Your task to perform on an android device: open app "Expedia: Hotels, Flights & Car" Image 0: 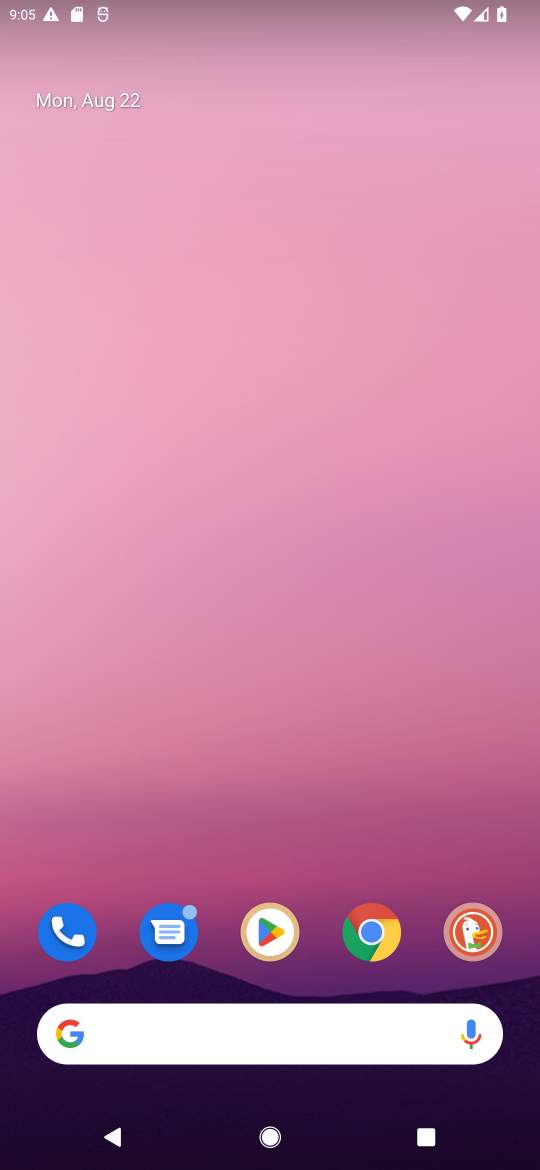
Step 0: click (267, 936)
Your task to perform on an android device: open app "Expedia: Hotels, Flights & Car" Image 1: 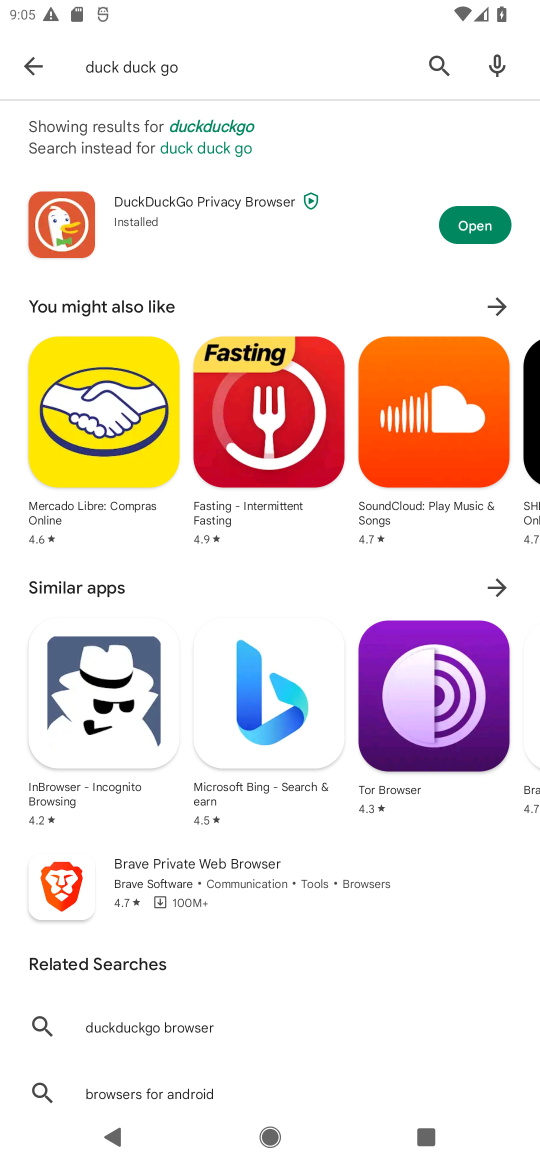
Step 1: click (418, 83)
Your task to perform on an android device: open app "Expedia: Hotels, Flights & Car" Image 2: 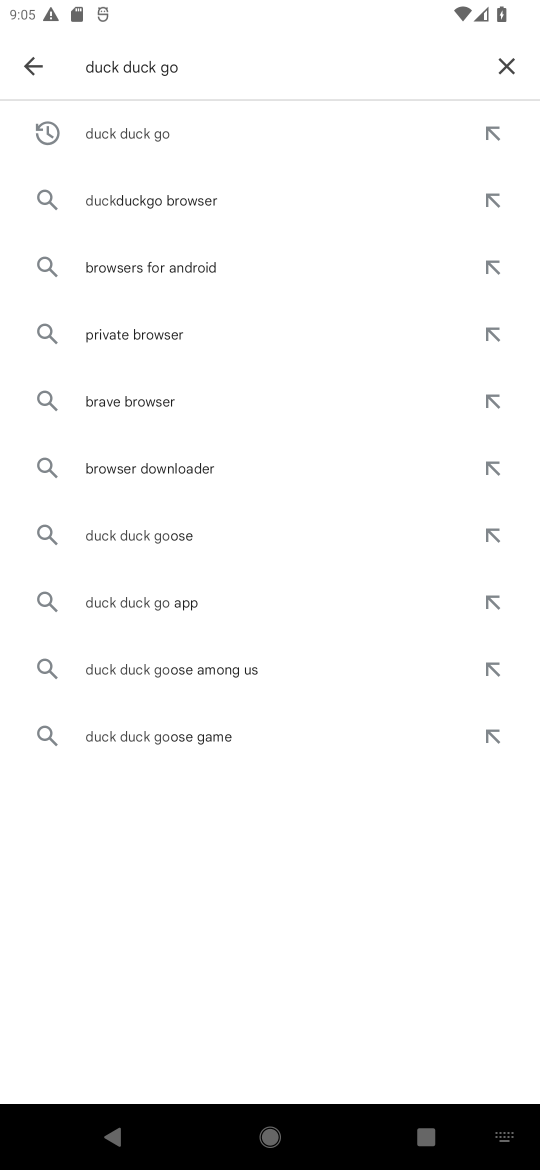
Step 2: click (523, 82)
Your task to perform on an android device: open app "Expedia: Hotels, Flights & Car" Image 3: 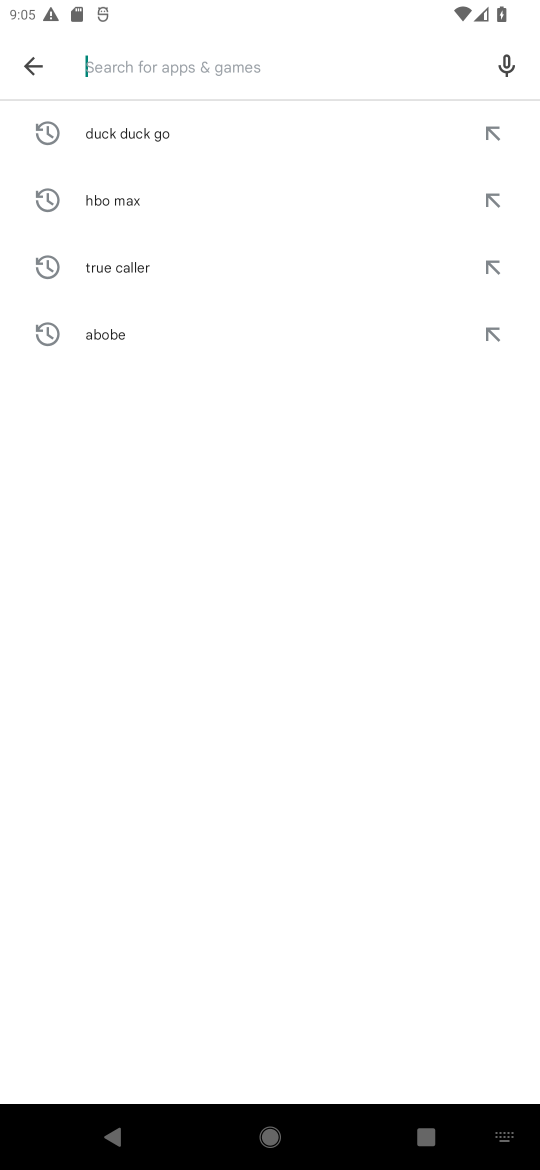
Step 3: type "expedia"
Your task to perform on an android device: open app "Expedia: Hotels, Flights & Car" Image 4: 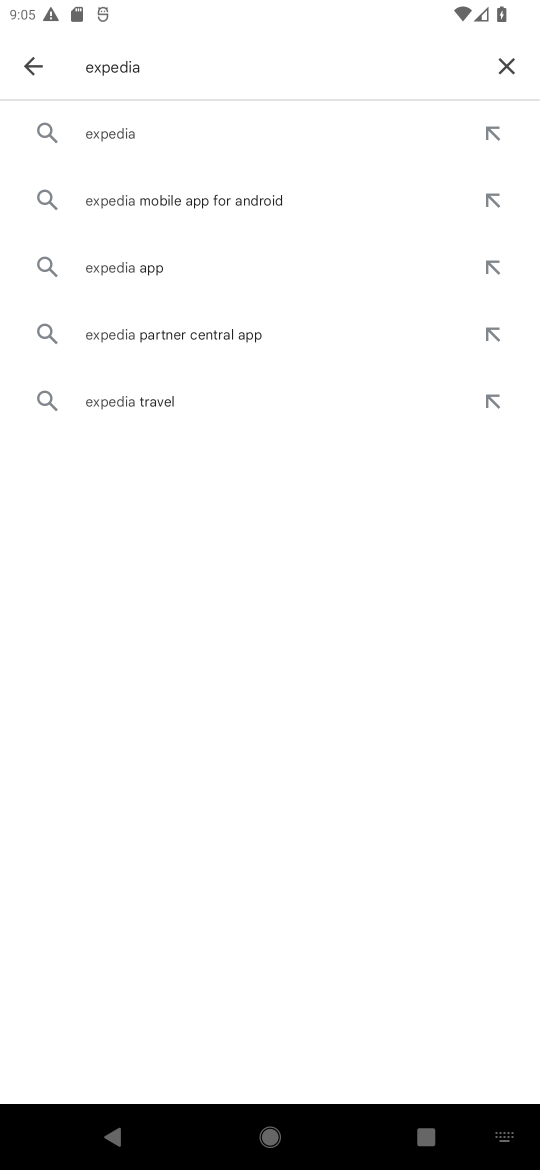
Step 4: click (163, 117)
Your task to perform on an android device: open app "Expedia: Hotels, Flights & Car" Image 5: 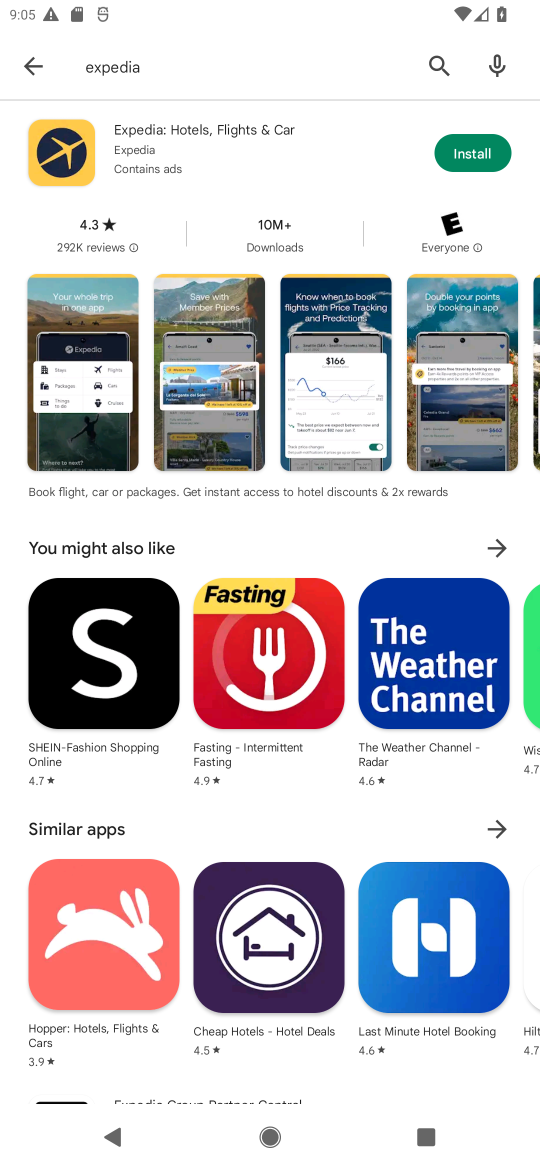
Step 5: click (455, 156)
Your task to perform on an android device: open app "Expedia: Hotels, Flights & Car" Image 6: 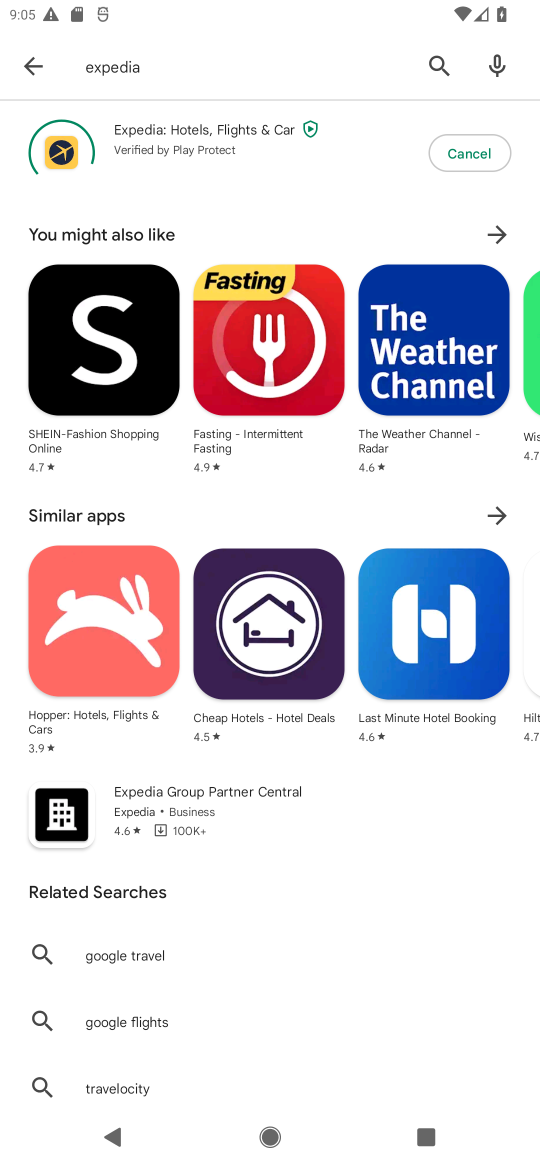
Step 6: task complete